Your task to perform on an android device: turn off translation in the chrome app Image 0: 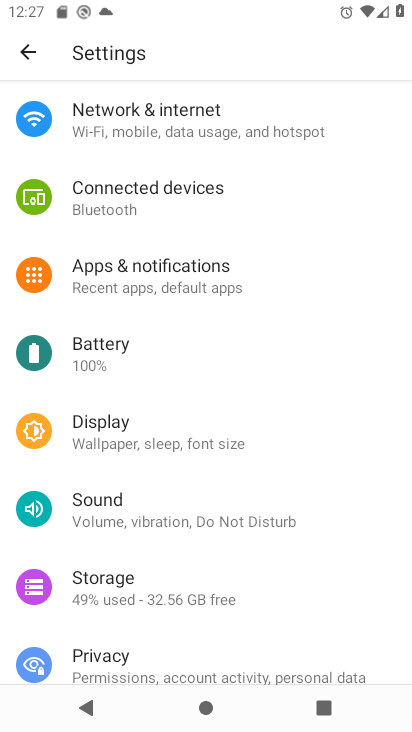
Step 0: press home button
Your task to perform on an android device: turn off translation in the chrome app Image 1: 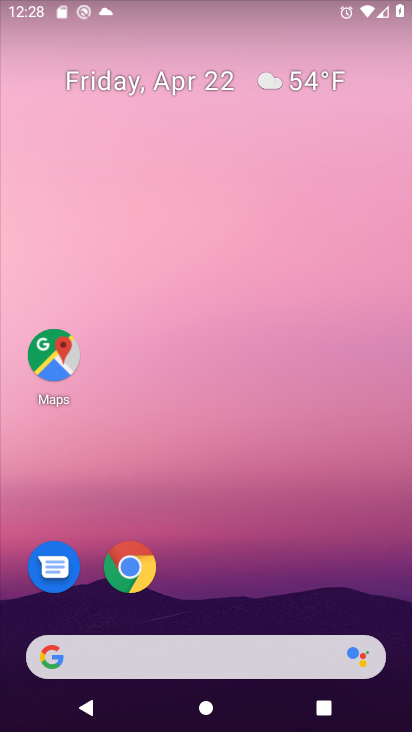
Step 1: click (143, 573)
Your task to perform on an android device: turn off translation in the chrome app Image 2: 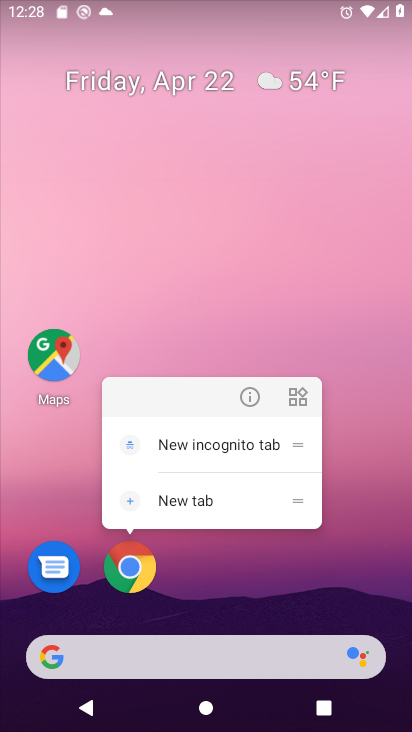
Step 2: click (130, 573)
Your task to perform on an android device: turn off translation in the chrome app Image 3: 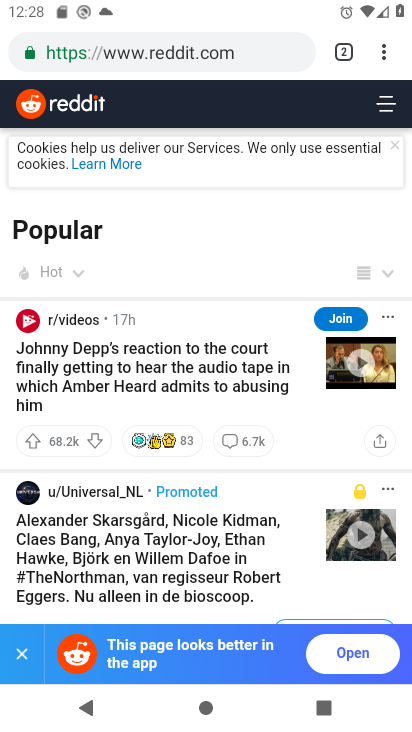
Step 3: click (389, 53)
Your task to perform on an android device: turn off translation in the chrome app Image 4: 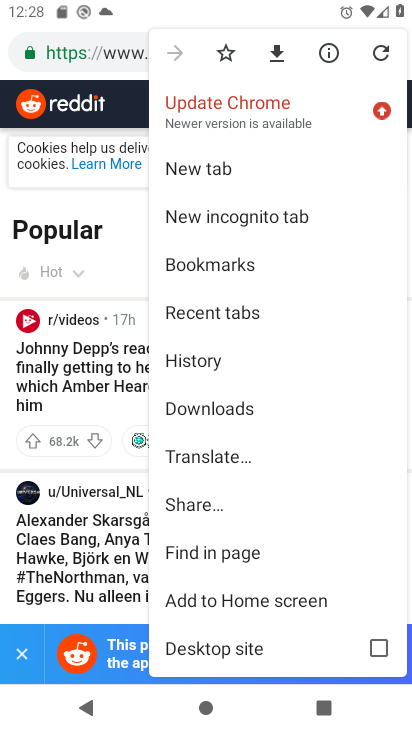
Step 4: click (226, 460)
Your task to perform on an android device: turn off translation in the chrome app Image 5: 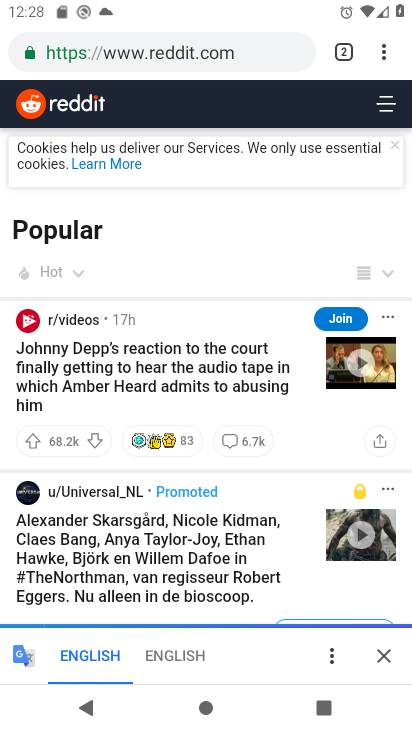
Step 5: click (382, 61)
Your task to perform on an android device: turn off translation in the chrome app Image 6: 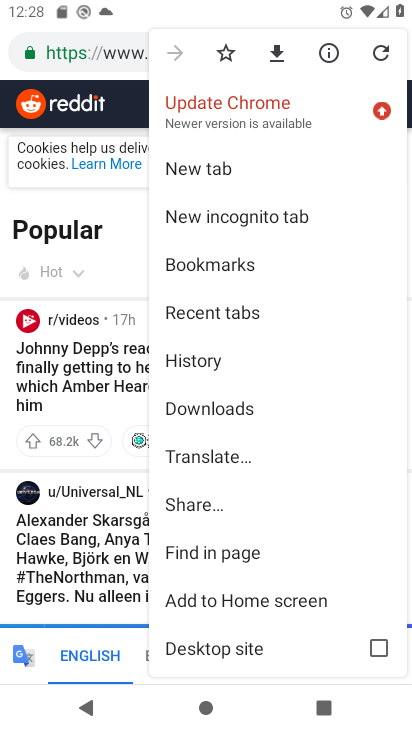
Step 6: click (215, 460)
Your task to perform on an android device: turn off translation in the chrome app Image 7: 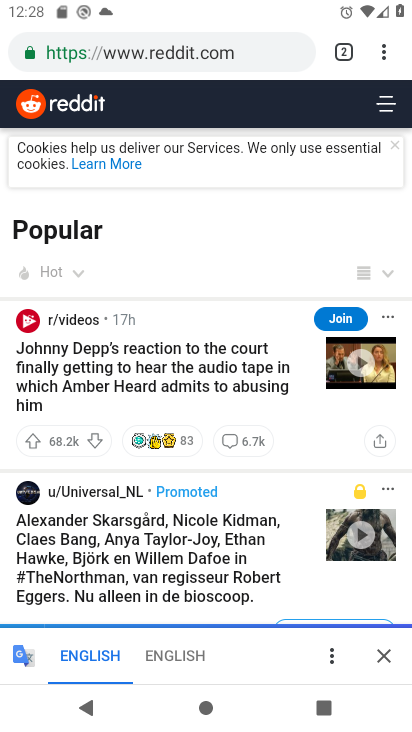
Step 7: click (330, 657)
Your task to perform on an android device: turn off translation in the chrome app Image 8: 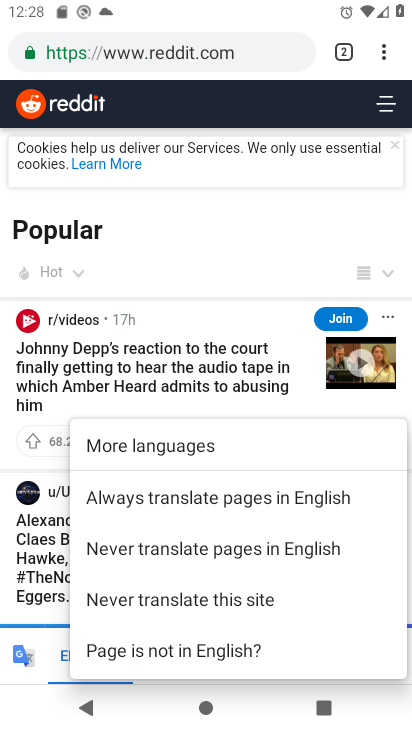
Step 8: click (260, 599)
Your task to perform on an android device: turn off translation in the chrome app Image 9: 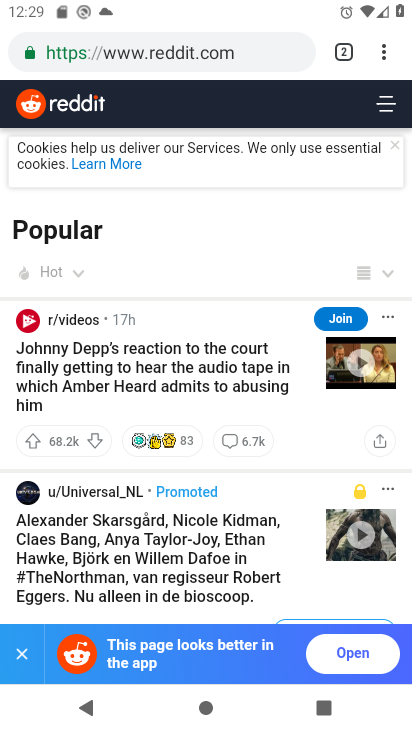
Step 9: task complete